Your task to perform on an android device: When is my next meeting? Image 0: 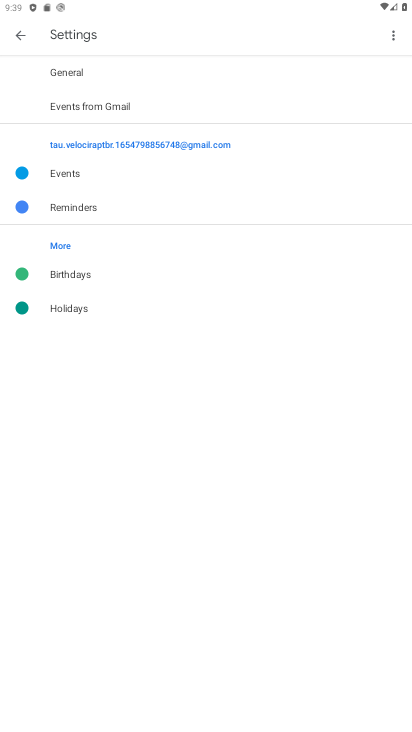
Step 0: type ""
Your task to perform on an android device: When is my next meeting? Image 1: 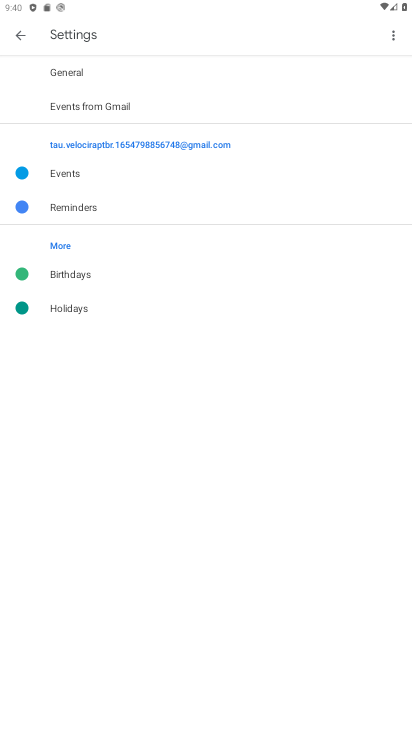
Step 1: drag from (388, 369) to (373, 115)
Your task to perform on an android device: When is my next meeting? Image 2: 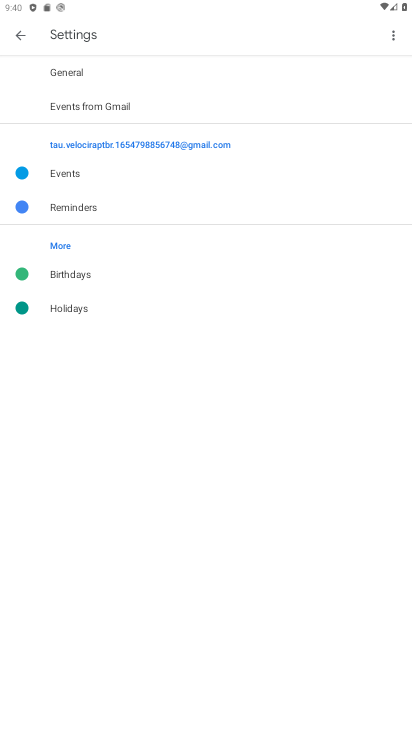
Step 2: click (247, 628)
Your task to perform on an android device: When is my next meeting? Image 3: 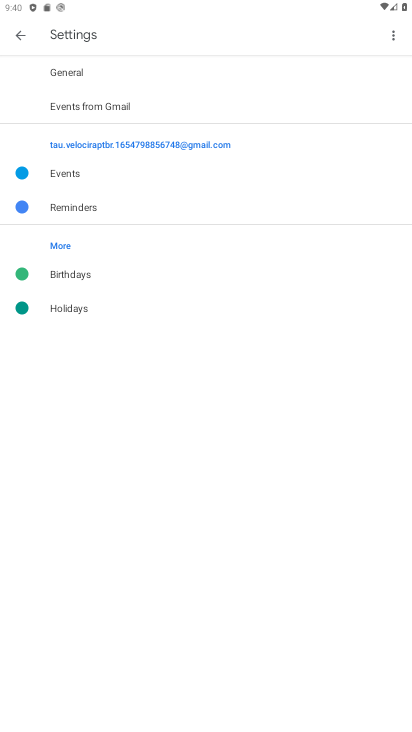
Step 3: click (24, 38)
Your task to perform on an android device: When is my next meeting? Image 4: 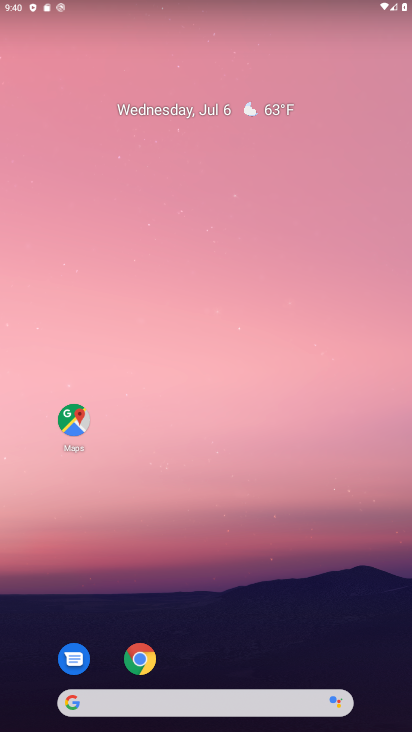
Step 4: drag from (218, 525) to (190, 203)
Your task to perform on an android device: When is my next meeting? Image 5: 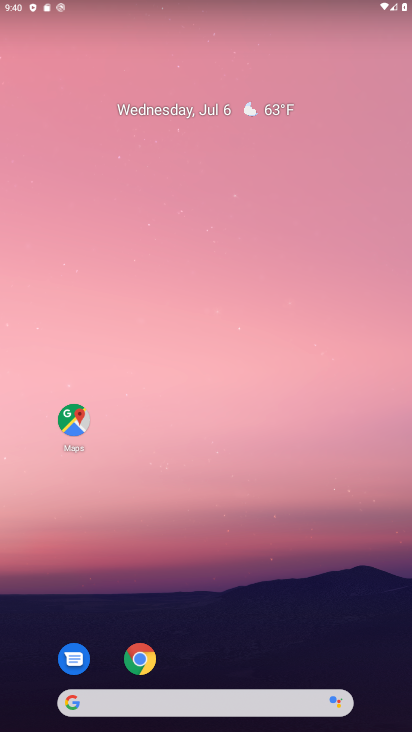
Step 5: drag from (234, 492) to (249, 241)
Your task to perform on an android device: When is my next meeting? Image 6: 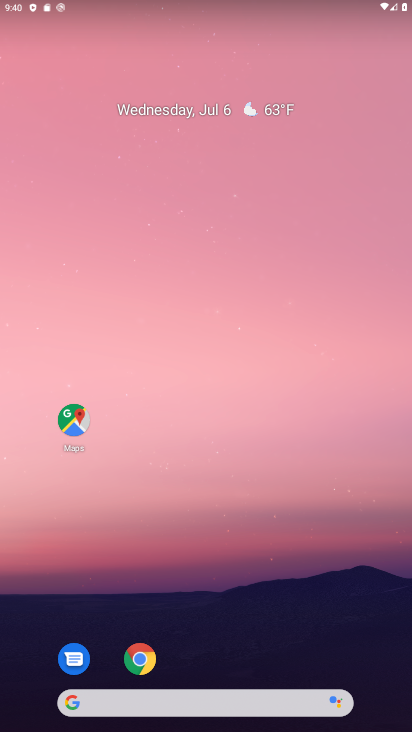
Step 6: drag from (185, 674) to (283, 198)
Your task to perform on an android device: When is my next meeting? Image 7: 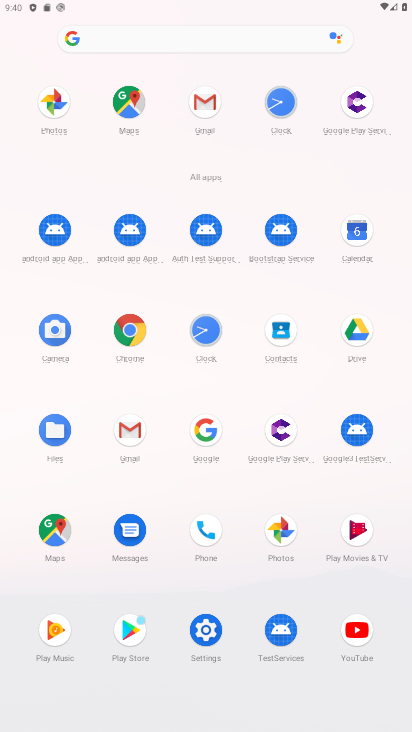
Step 7: click (358, 226)
Your task to perform on an android device: When is my next meeting? Image 8: 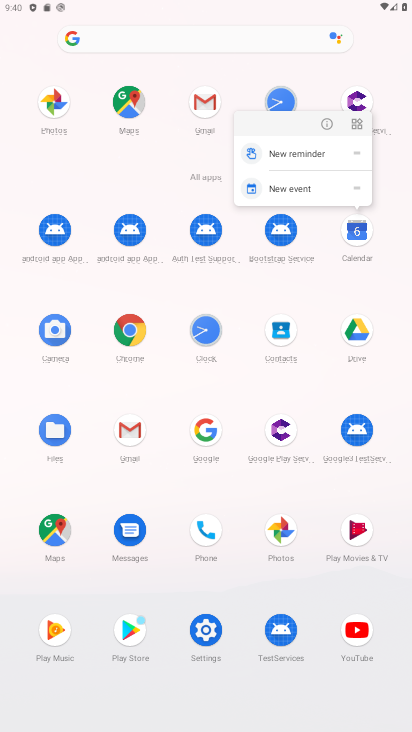
Step 8: click (322, 119)
Your task to perform on an android device: When is my next meeting? Image 9: 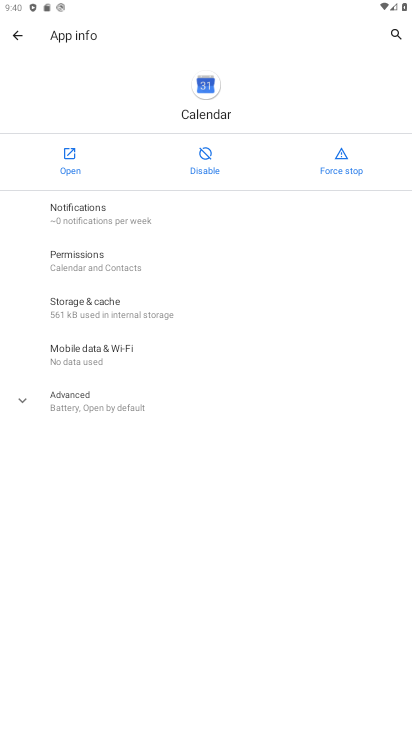
Step 9: click (71, 163)
Your task to perform on an android device: When is my next meeting? Image 10: 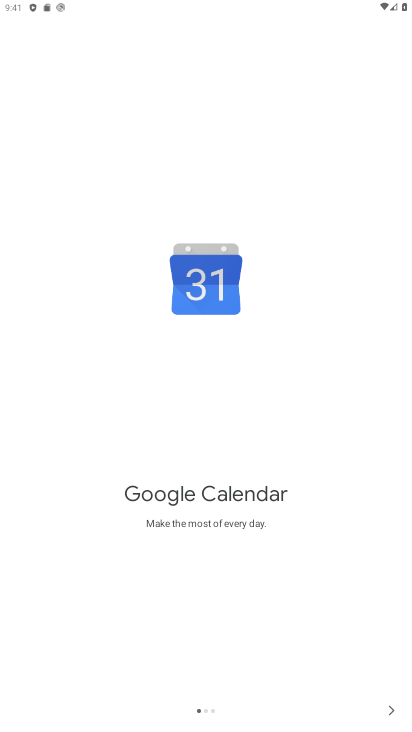
Step 10: drag from (264, 604) to (269, 299)
Your task to perform on an android device: When is my next meeting? Image 11: 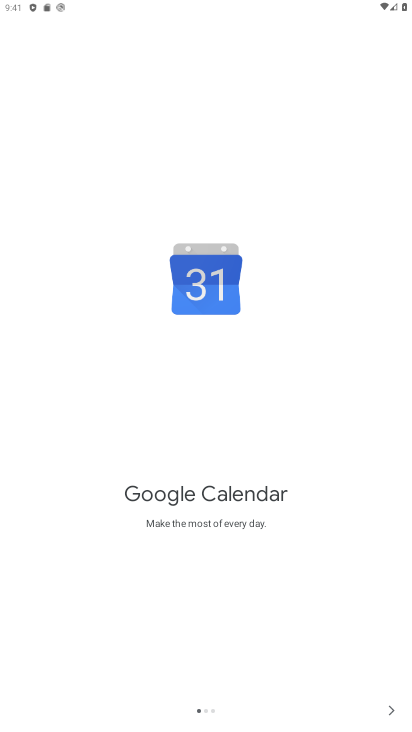
Step 11: click (391, 706)
Your task to perform on an android device: When is my next meeting? Image 12: 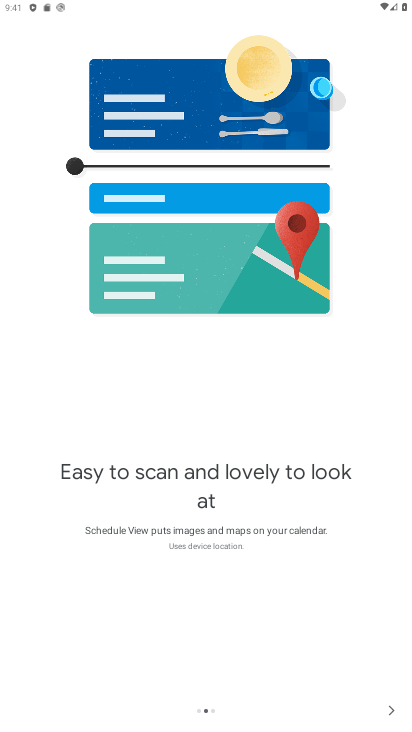
Step 12: click (390, 704)
Your task to perform on an android device: When is my next meeting? Image 13: 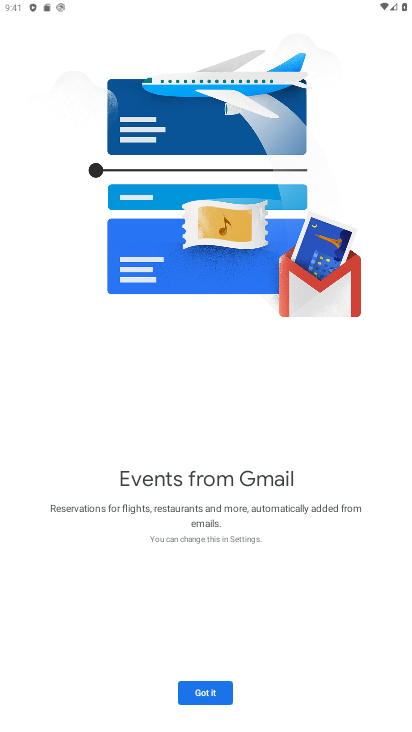
Step 13: drag from (369, 563) to (370, 435)
Your task to perform on an android device: When is my next meeting? Image 14: 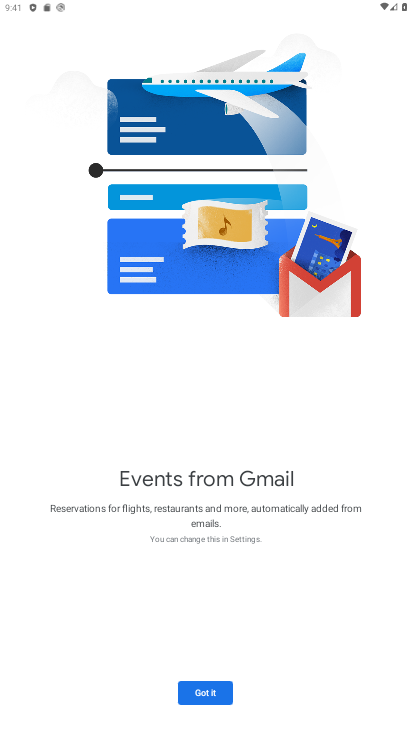
Step 14: drag from (167, 627) to (333, 304)
Your task to perform on an android device: When is my next meeting? Image 15: 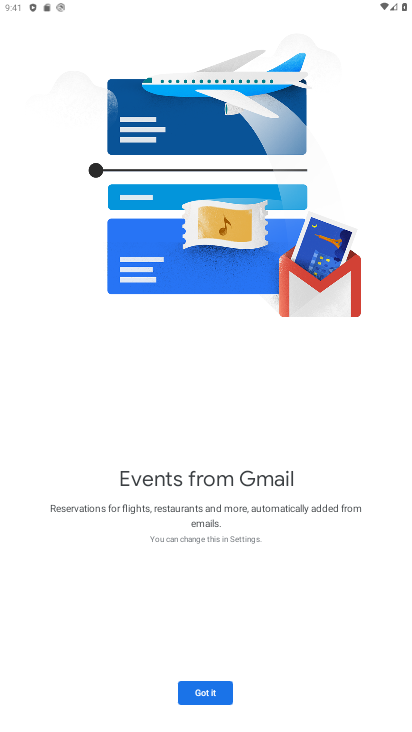
Step 15: drag from (174, 525) to (216, 343)
Your task to perform on an android device: When is my next meeting? Image 16: 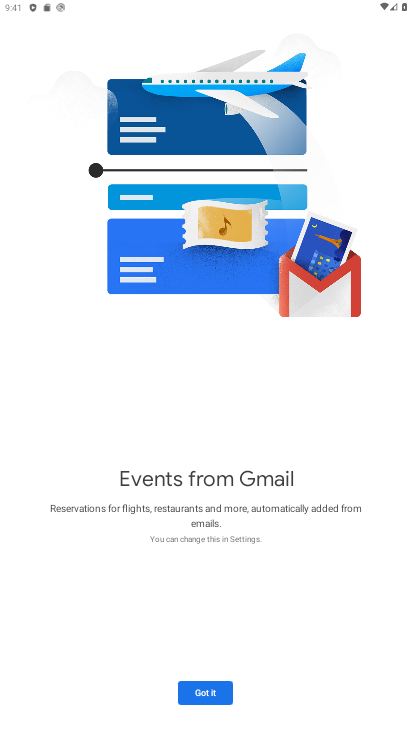
Step 16: click (202, 702)
Your task to perform on an android device: When is my next meeting? Image 17: 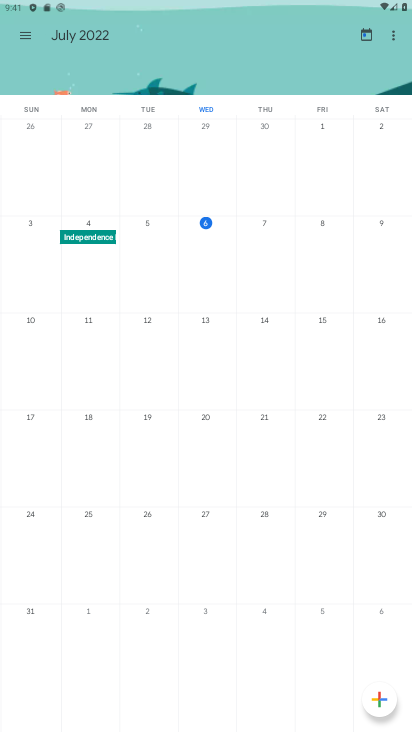
Step 17: click (203, 221)
Your task to perform on an android device: When is my next meeting? Image 18: 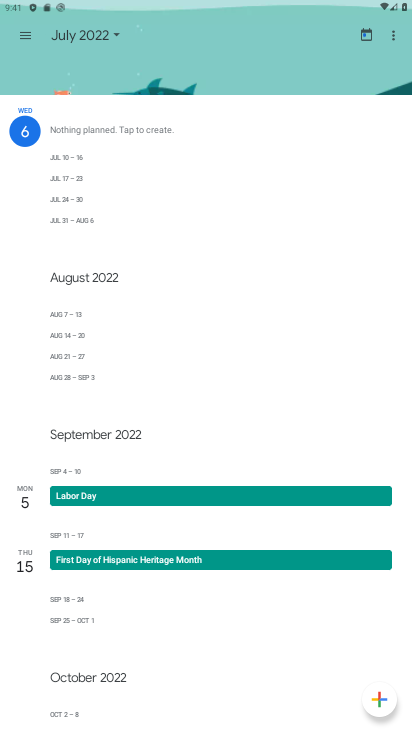
Step 18: task complete